Your task to perform on an android device: Show me popular videos on Youtube Image 0: 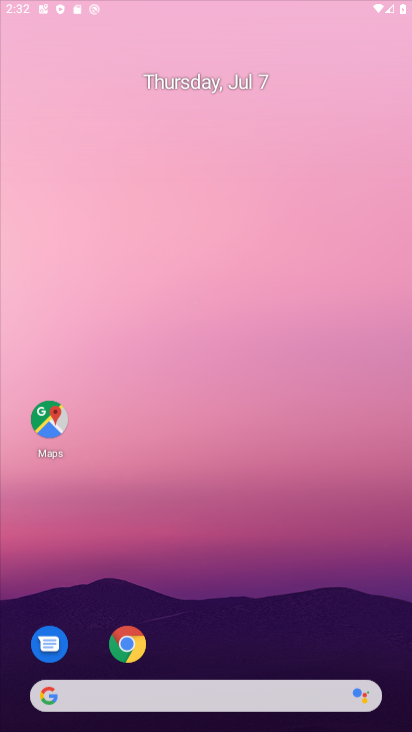
Step 0: press home button
Your task to perform on an android device: Show me popular videos on Youtube Image 1: 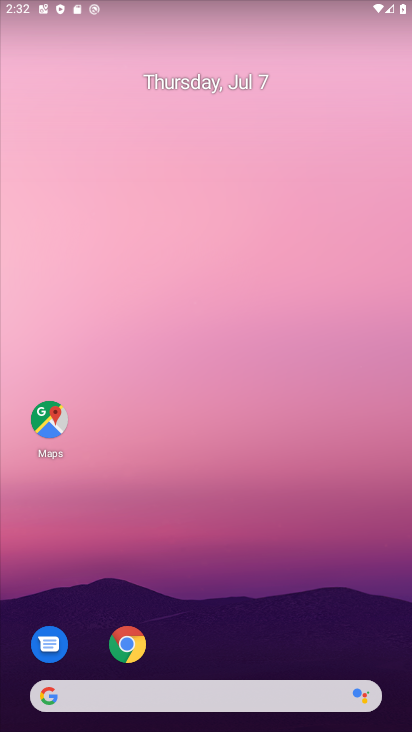
Step 1: drag from (252, 606) to (216, 122)
Your task to perform on an android device: Show me popular videos on Youtube Image 2: 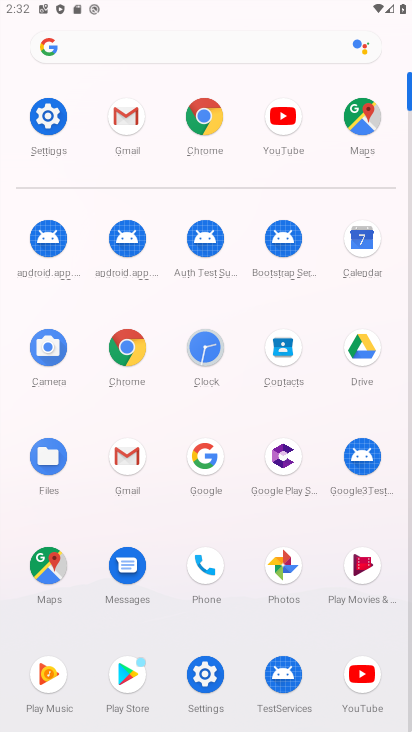
Step 2: click (363, 678)
Your task to perform on an android device: Show me popular videos on Youtube Image 3: 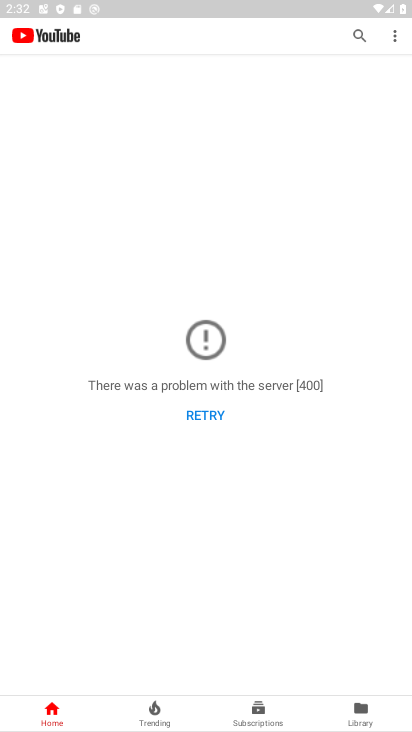
Step 3: click (201, 419)
Your task to perform on an android device: Show me popular videos on Youtube Image 4: 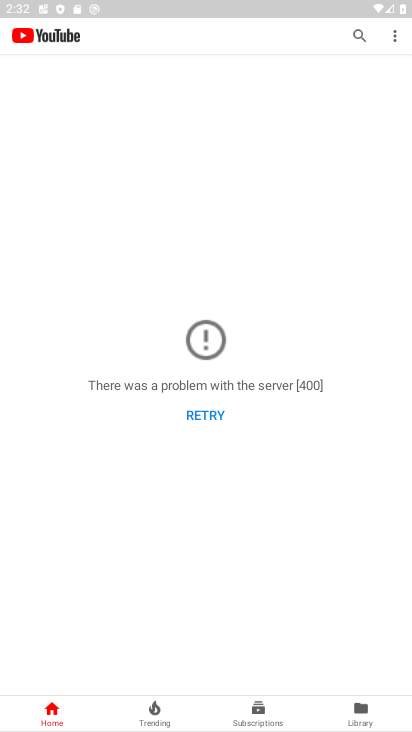
Step 4: click (205, 415)
Your task to perform on an android device: Show me popular videos on Youtube Image 5: 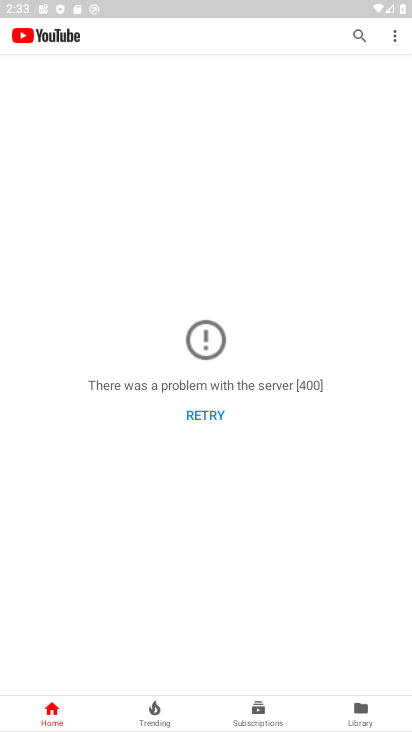
Step 5: click (205, 415)
Your task to perform on an android device: Show me popular videos on Youtube Image 6: 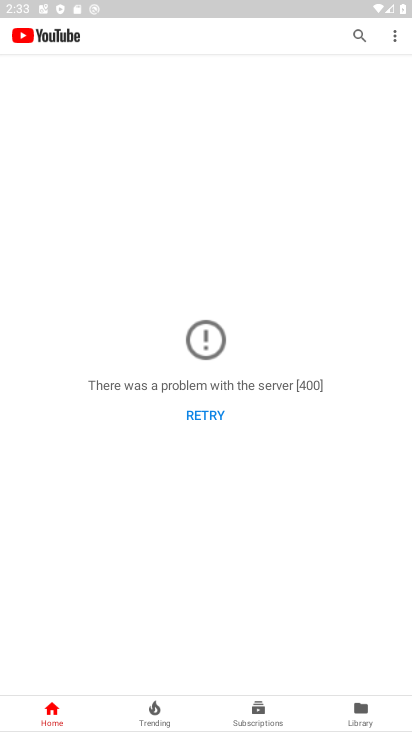
Step 6: task complete